Your task to perform on an android device: install app "Roku - Official Remote Control" Image 0: 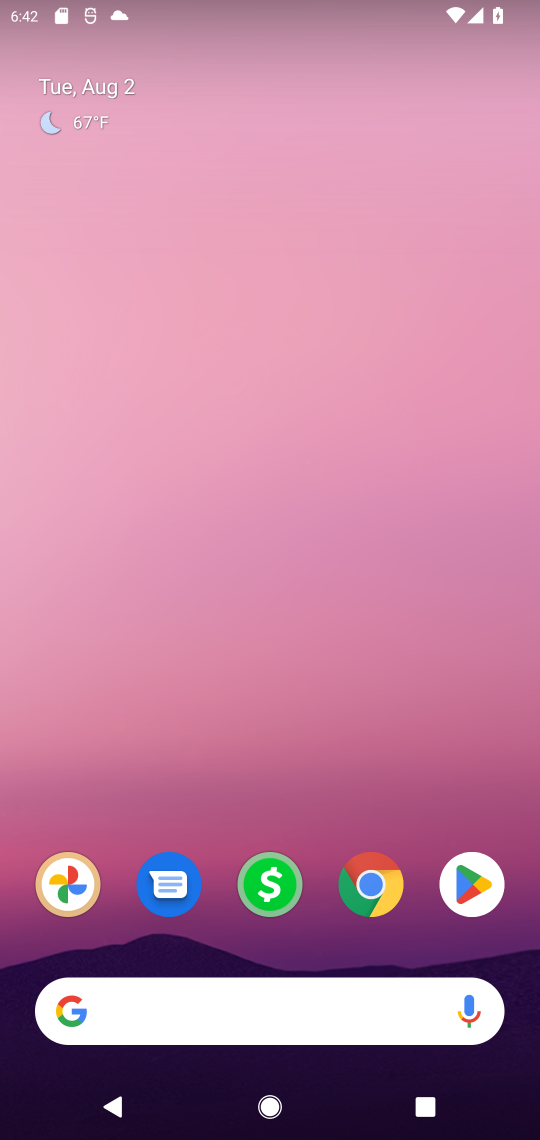
Step 0: press home button
Your task to perform on an android device: install app "Roku - Official Remote Control" Image 1: 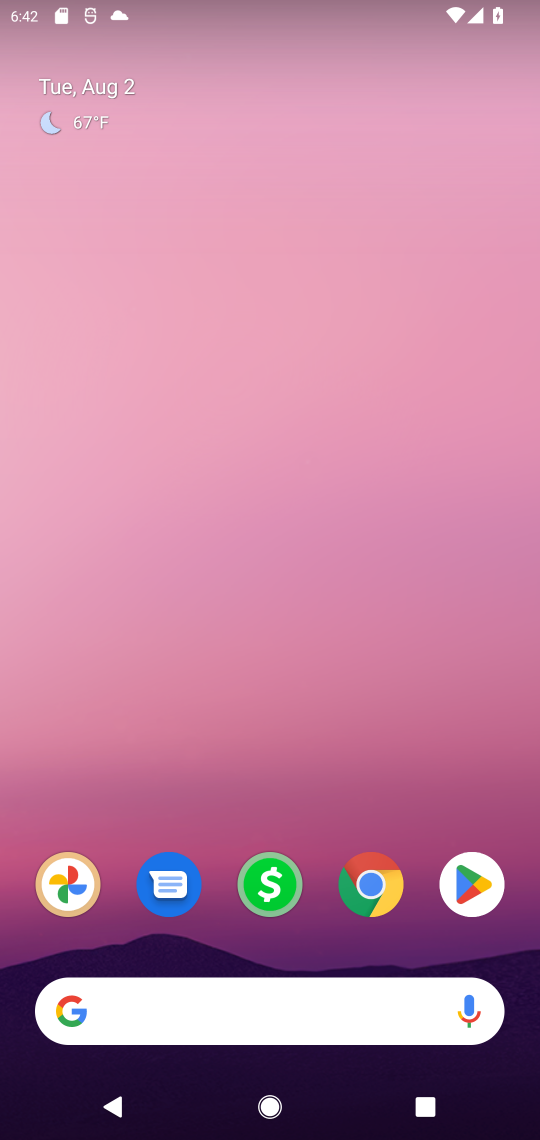
Step 1: click (460, 880)
Your task to perform on an android device: install app "Roku - Official Remote Control" Image 2: 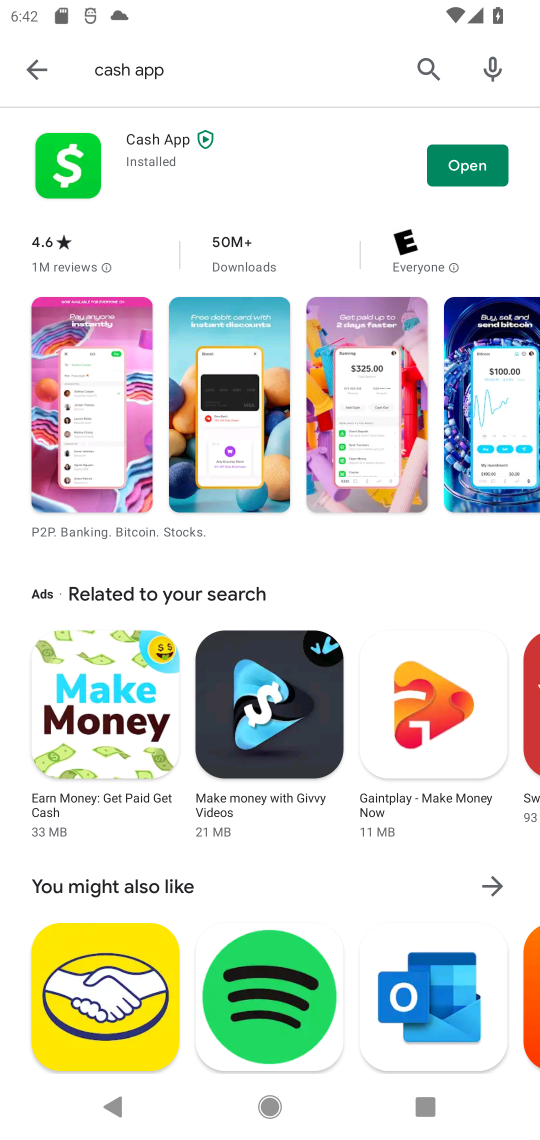
Step 2: click (421, 88)
Your task to perform on an android device: install app "Roku - Official Remote Control" Image 3: 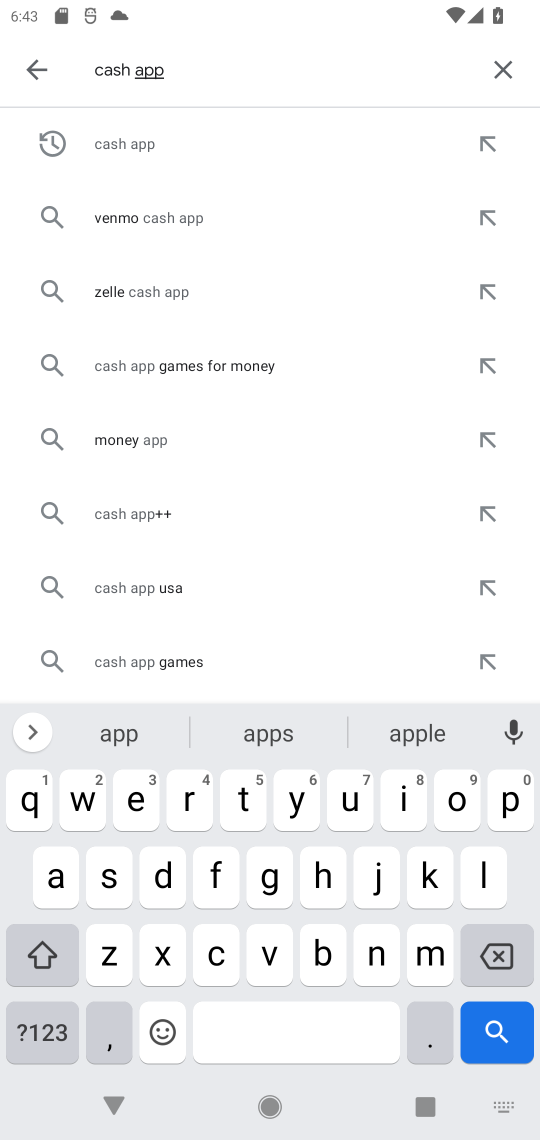
Step 3: click (491, 71)
Your task to perform on an android device: install app "Roku - Official Remote Control" Image 4: 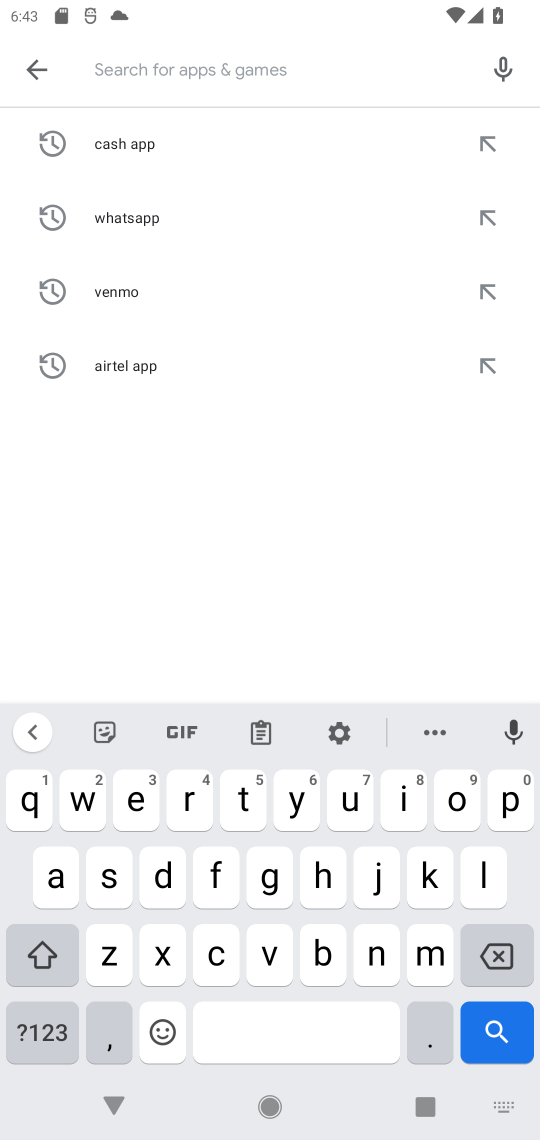
Step 4: click (175, 795)
Your task to perform on an android device: install app "Roku - Official Remote Control" Image 5: 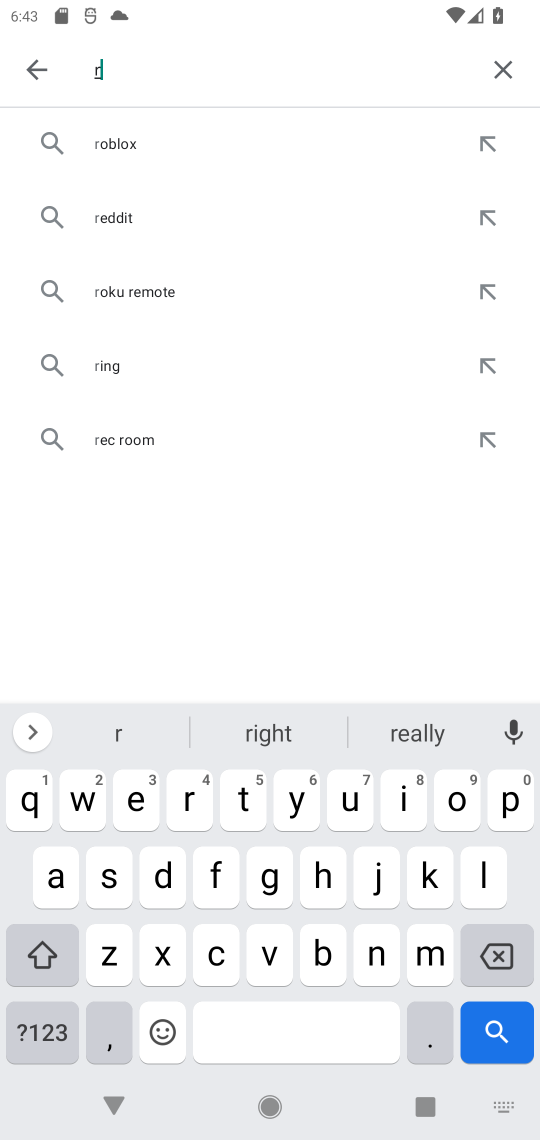
Step 5: click (456, 797)
Your task to perform on an android device: install app "Roku - Official Remote Control" Image 6: 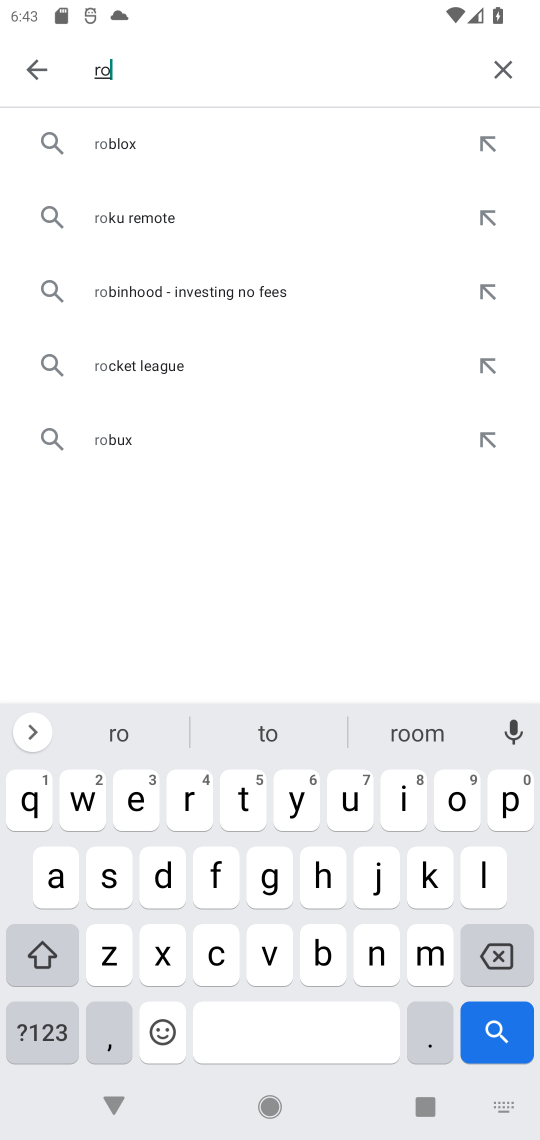
Step 6: click (428, 879)
Your task to perform on an android device: install app "Roku - Official Remote Control" Image 7: 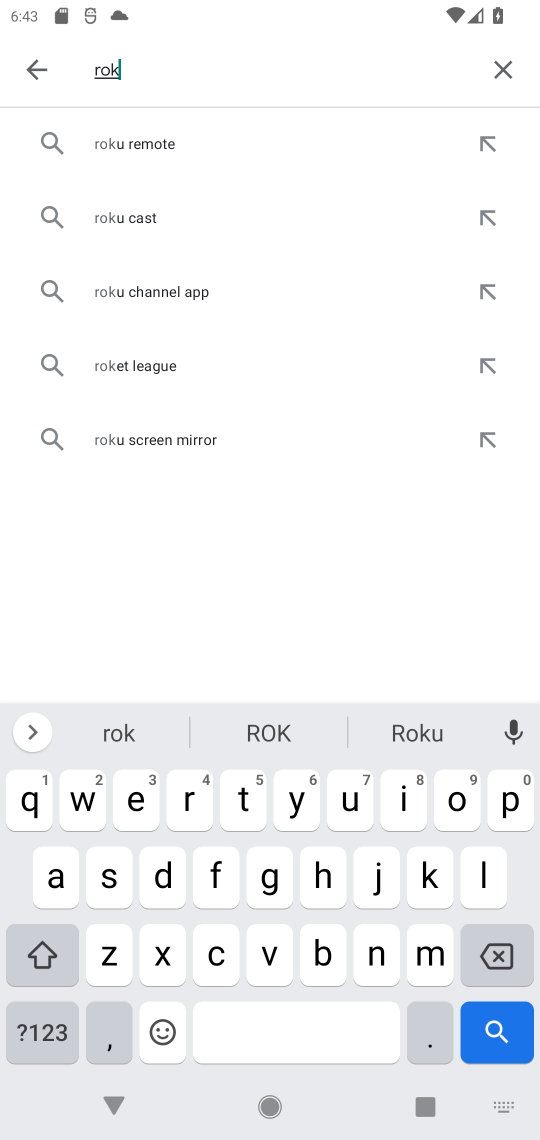
Step 7: click (345, 808)
Your task to perform on an android device: install app "Roku - Official Remote Control" Image 8: 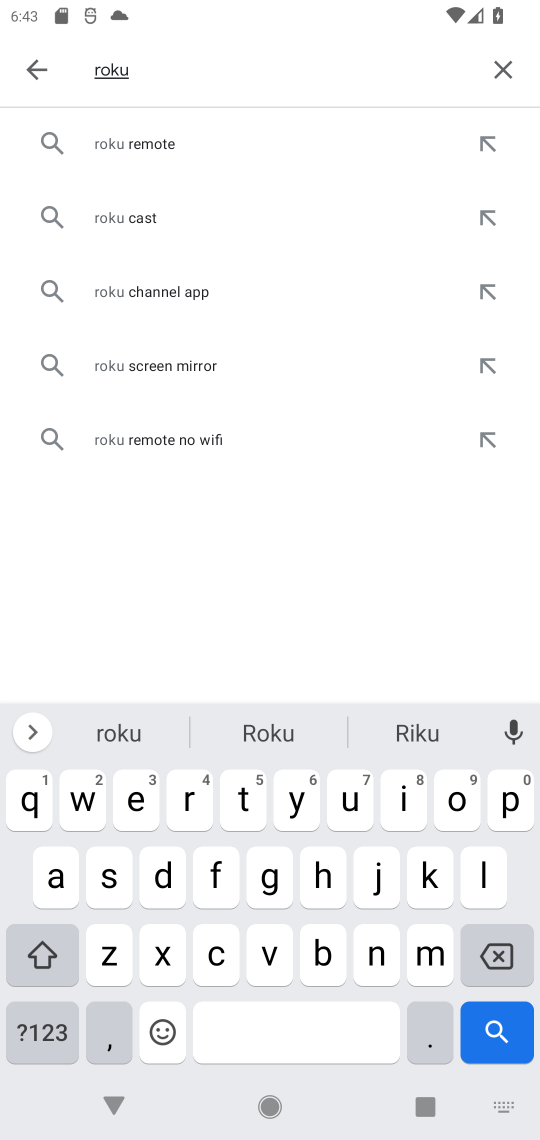
Step 8: click (178, 135)
Your task to perform on an android device: install app "Roku - Official Remote Control" Image 9: 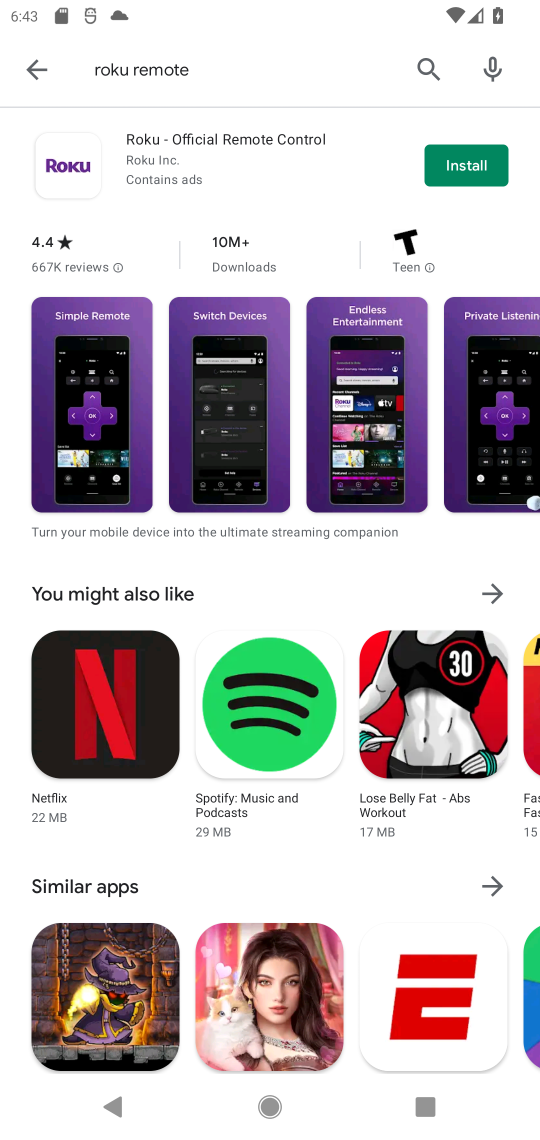
Step 9: click (455, 163)
Your task to perform on an android device: install app "Roku - Official Remote Control" Image 10: 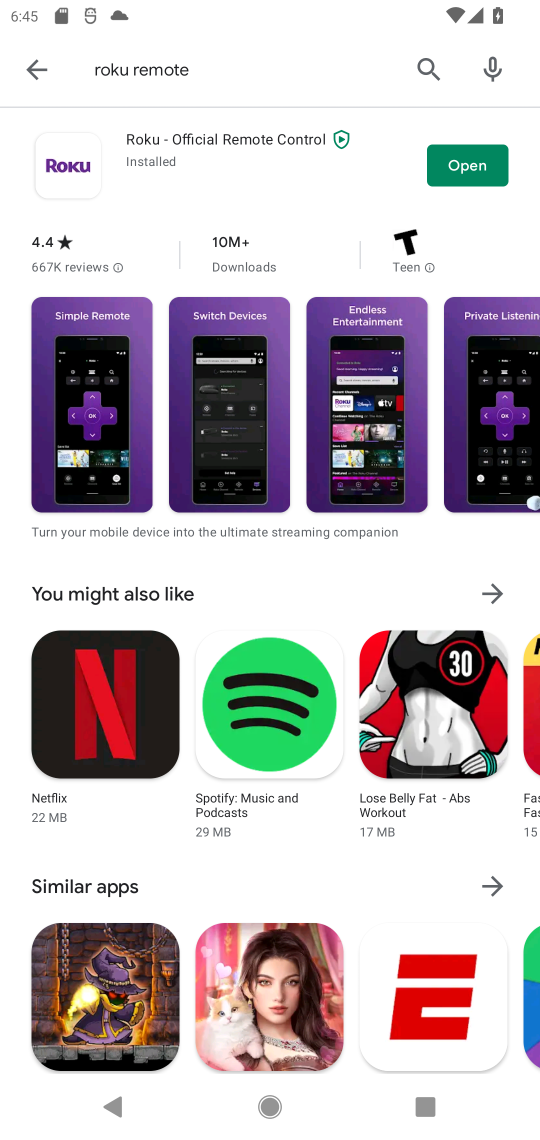
Step 10: task complete